Your task to perform on an android device: turn off location Image 0: 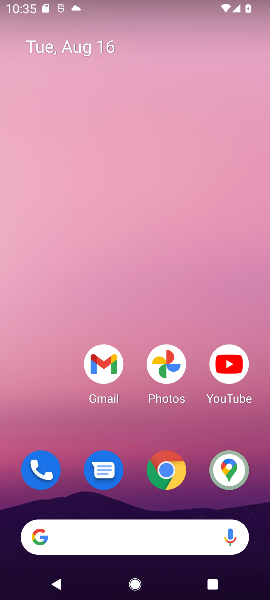
Step 0: drag from (51, 400) to (121, 0)
Your task to perform on an android device: turn off location Image 1: 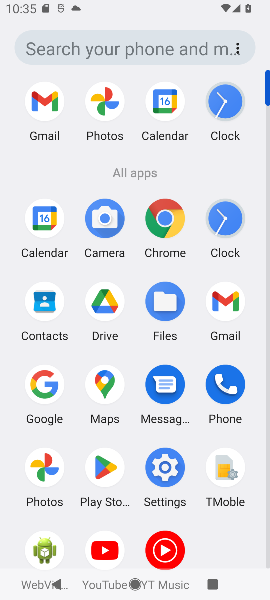
Step 1: click (161, 458)
Your task to perform on an android device: turn off location Image 2: 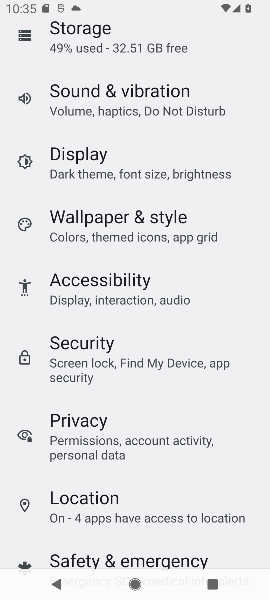
Step 2: click (133, 483)
Your task to perform on an android device: turn off location Image 3: 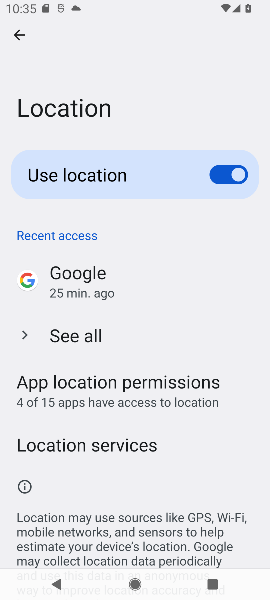
Step 3: click (228, 168)
Your task to perform on an android device: turn off location Image 4: 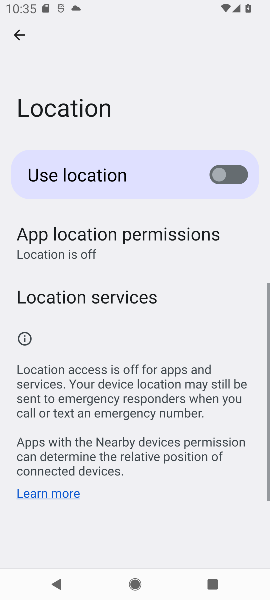
Step 4: task complete